Your task to perform on an android device: Toggle the flashlight Image 0: 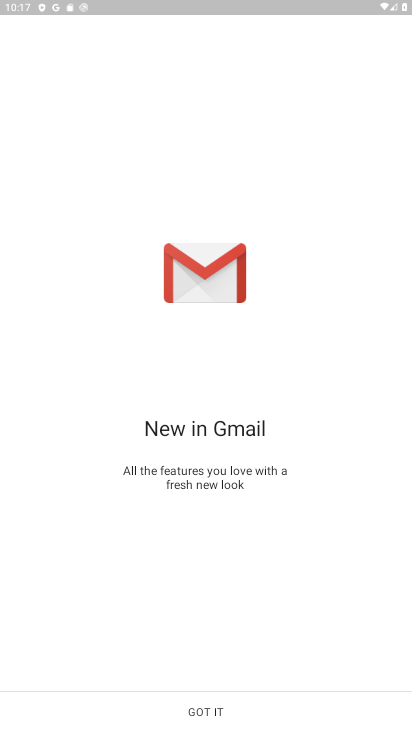
Step 0: press home button
Your task to perform on an android device: Toggle the flashlight Image 1: 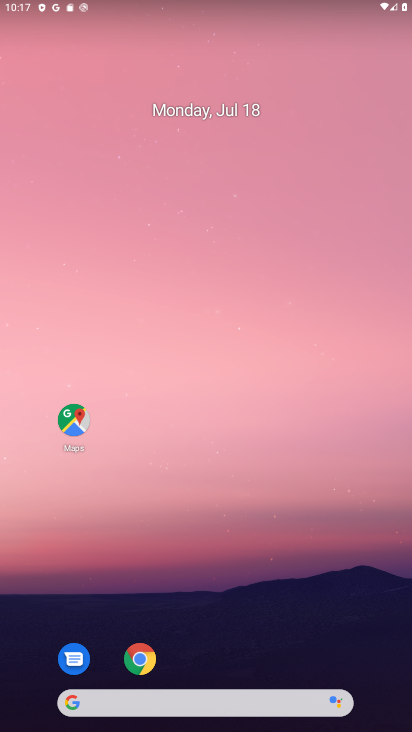
Step 1: drag from (209, 662) to (222, 229)
Your task to perform on an android device: Toggle the flashlight Image 2: 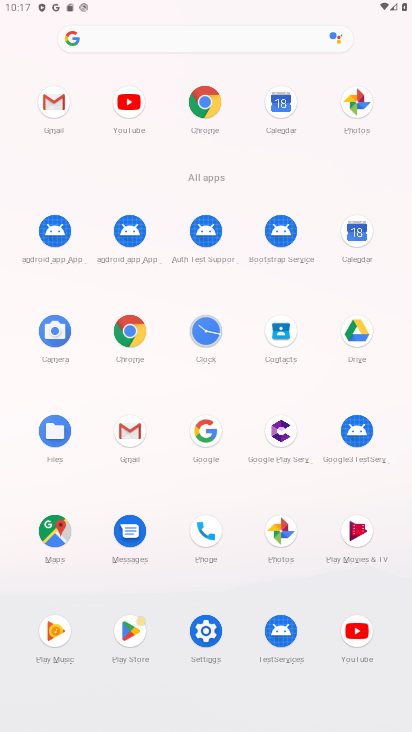
Step 2: click (208, 639)
Your task to perform on an android device: Toggle the flashlight Image 3: 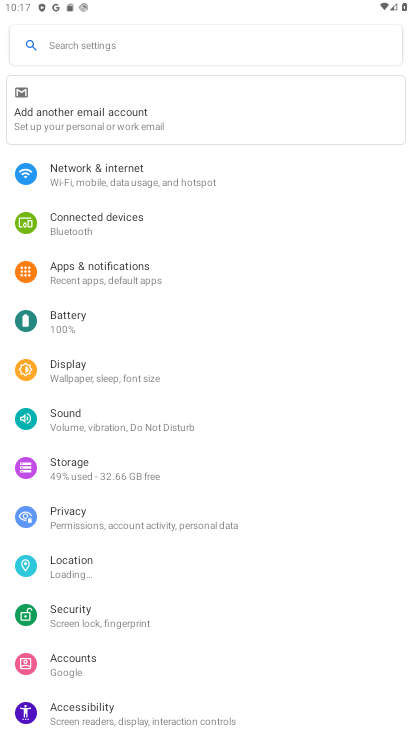
Step 3: click (190, 48)
Your task to perform on an android device: Toggle the flashlight Image 4: 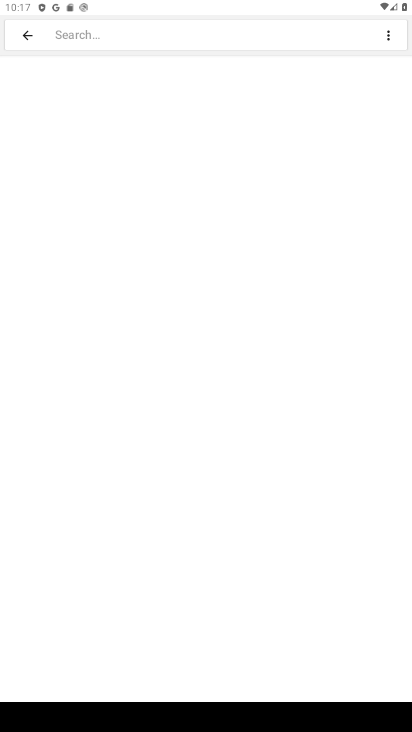
Step 4: type "flashlight"
Your task to perform on an android device: Toggle the flashlight Image 5: 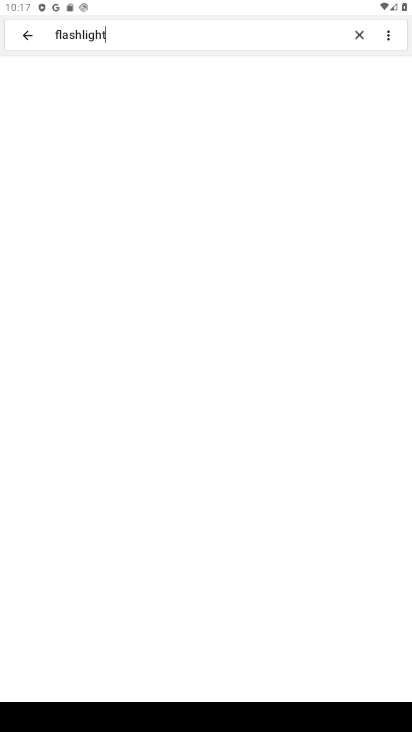
Step 5: task complete